Your task to perform on an android device: What's the weather going to be this weekend? Image 0: 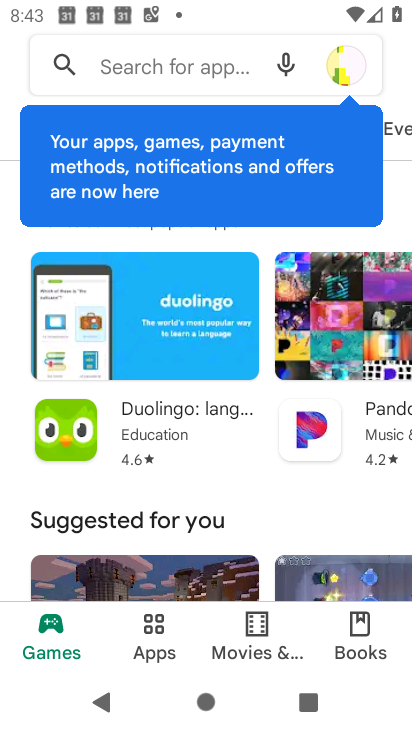
Step 0: press home button
Your task to perform on an android device: What's the weather going to be this weekend? Image 1: 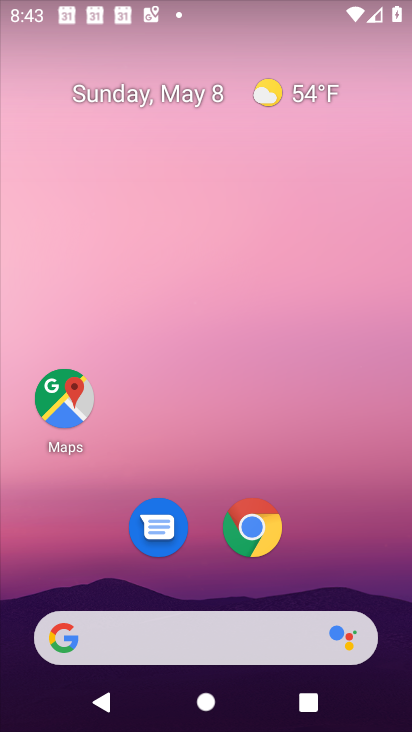
Step 1: drag from (315, 586) to (217, 179)
Your task to perform on an android device: What's the weather going to be this weekend? Image 2: 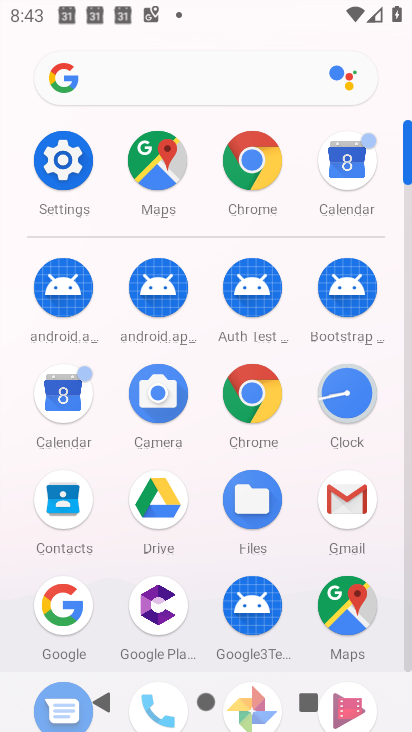
Step 2: click (134, 86)
Your task to perform on an android device: What's the weather going to be this weekend? Image 3: 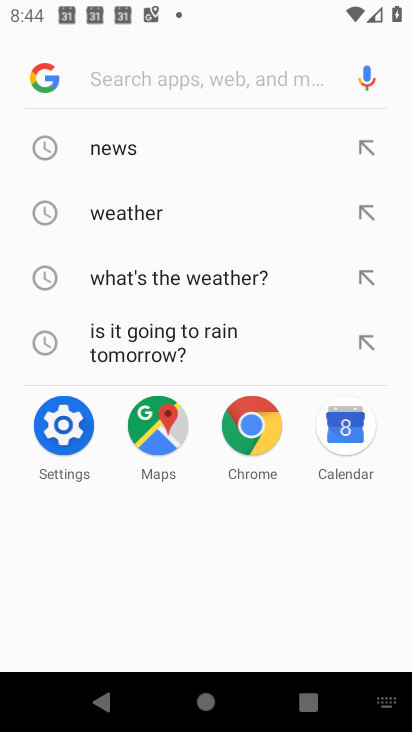
Step 3: type "what's the weather going to be this weekend"
Your task to perform on an android device: What's the weather going to be this weekend? Image 4: 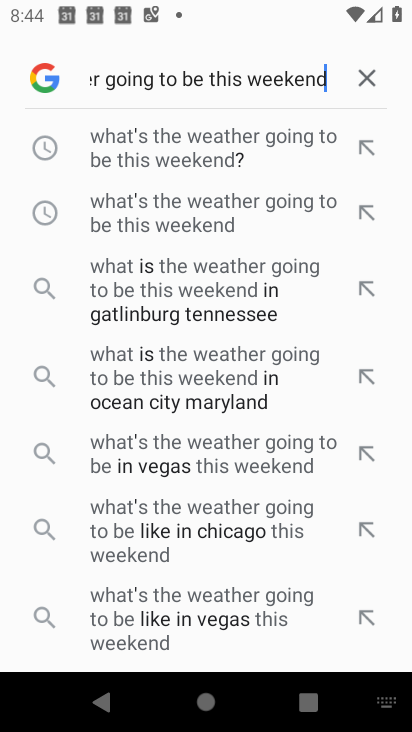
Step 4: click (116, 161)
Your task to perform on an android device: What's the weather going to be this weekend? Image 5: 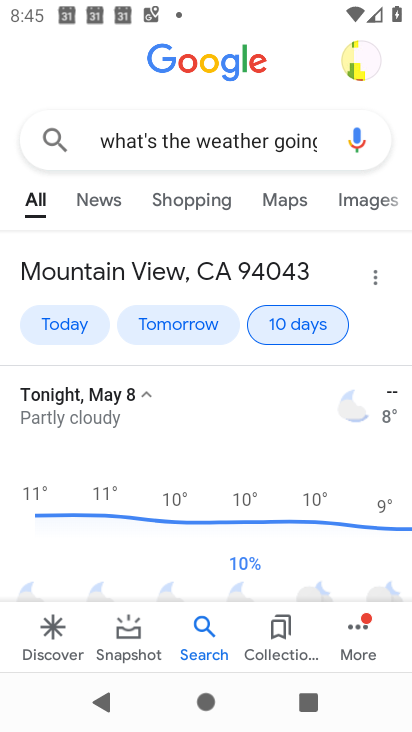
Step 5: drag from (240, 430) to (169, 145)
Your task to perform on an android device: What's the weather going to be this weekend? Image 6: 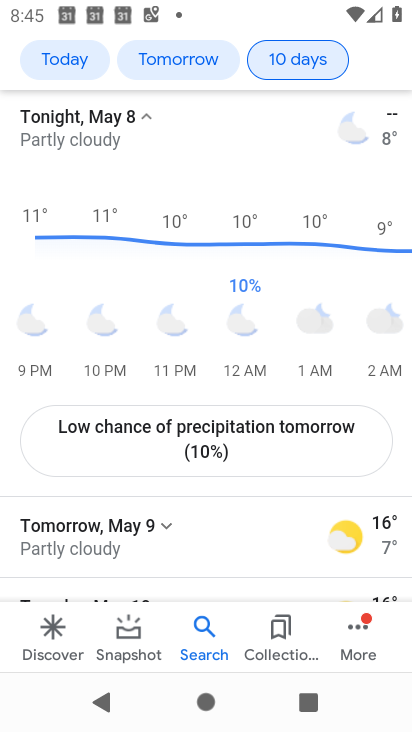
Step 6: drag from (217, 480) to (204, 248)
Your task to perform on an android device: What's the weather going to be this weekend? Image 7: 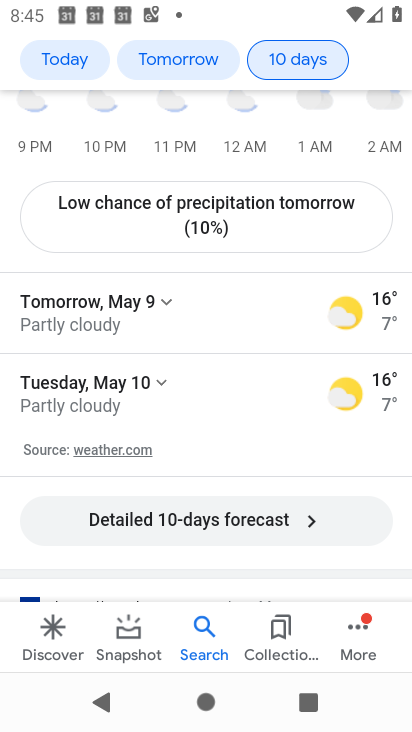
Step 7: click (157, 300)
Your task to perform on an android device: What's the weather going to be this weekend? Image 8: 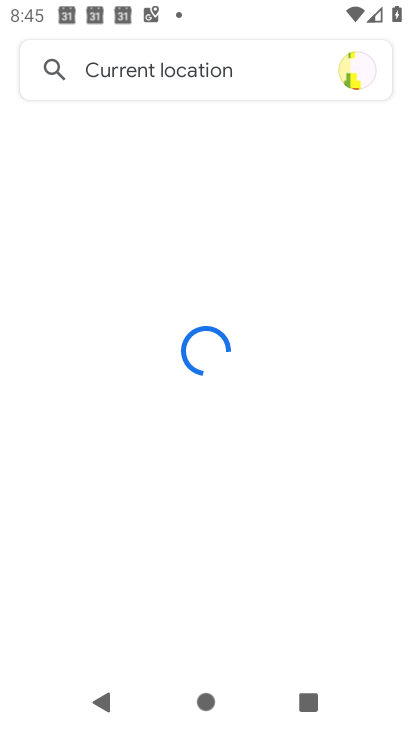
Step 8: click (161, 298)
Your task to perform on an android device: What's the weather going to be this weekend? Image 9: 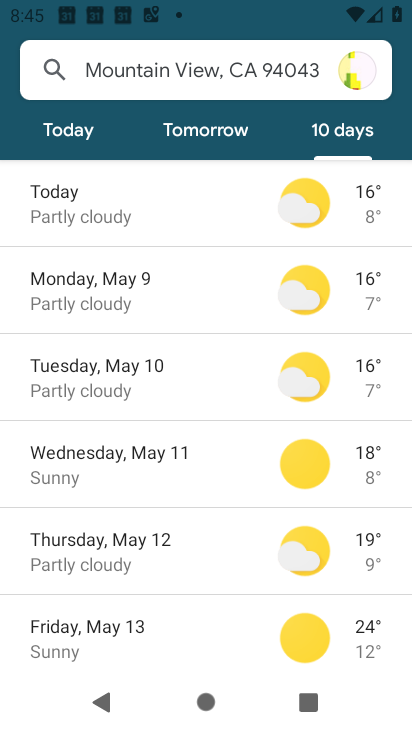
Step 9: task complete